Your task to perform on an android device: Search for hotels in Chicago Image 0: 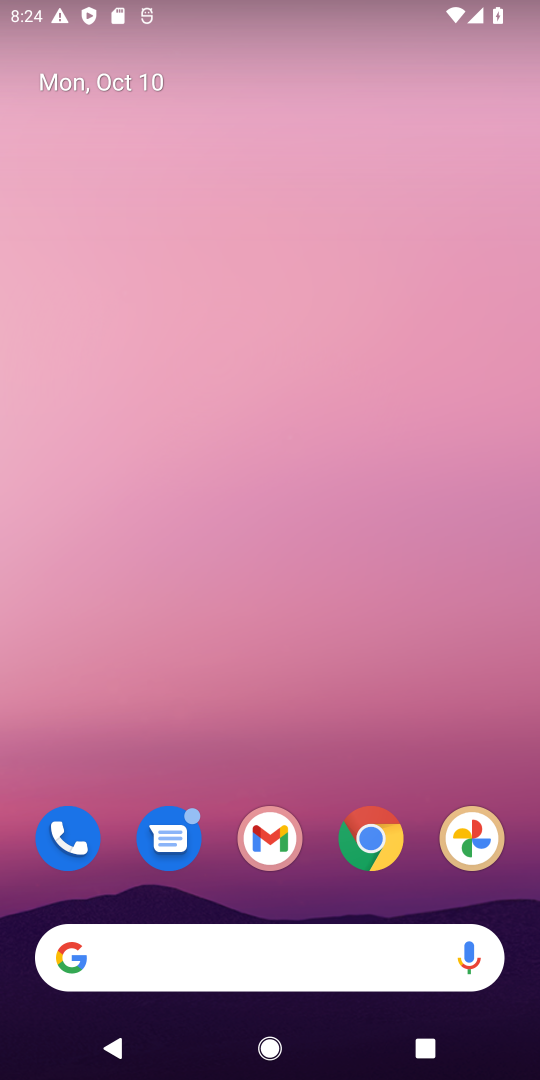
Step 0: drag from (285, 928) to (198, 123)
Your task to perform on an android device: Search for hotels in Chicago Image 1: 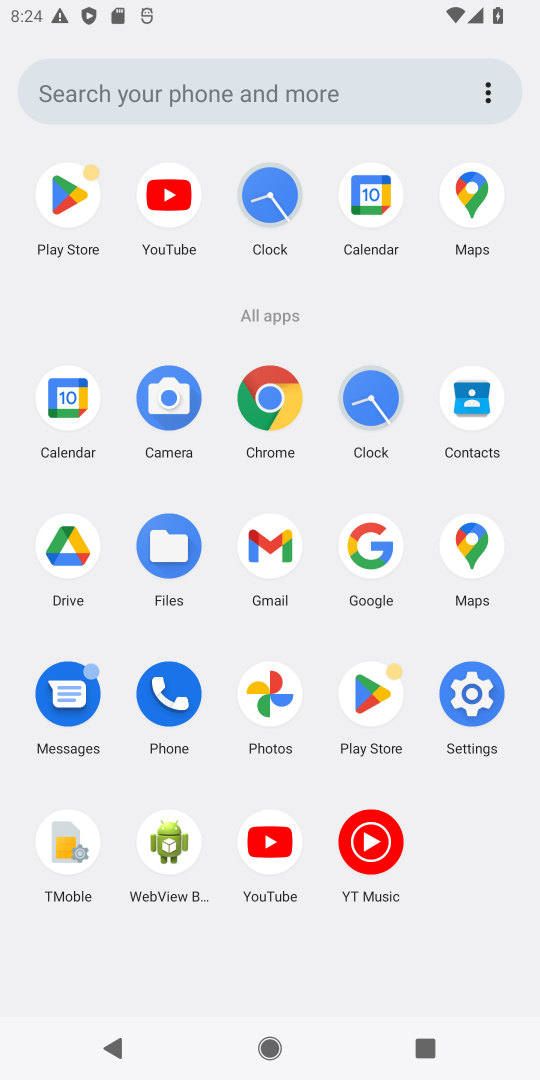
Step 1: click (364, 551)
Your task to perform on an android device: Search for hotels in Chicago Image 2: 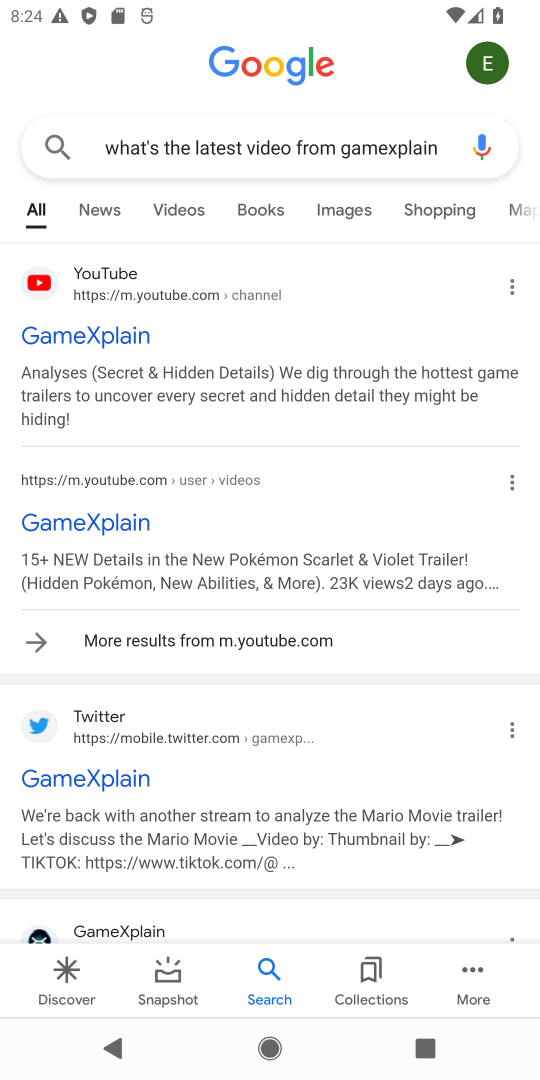
Step 2: click (316, 143)
Your task to perform on an android device: Search for hotels in Chicago Image 3: 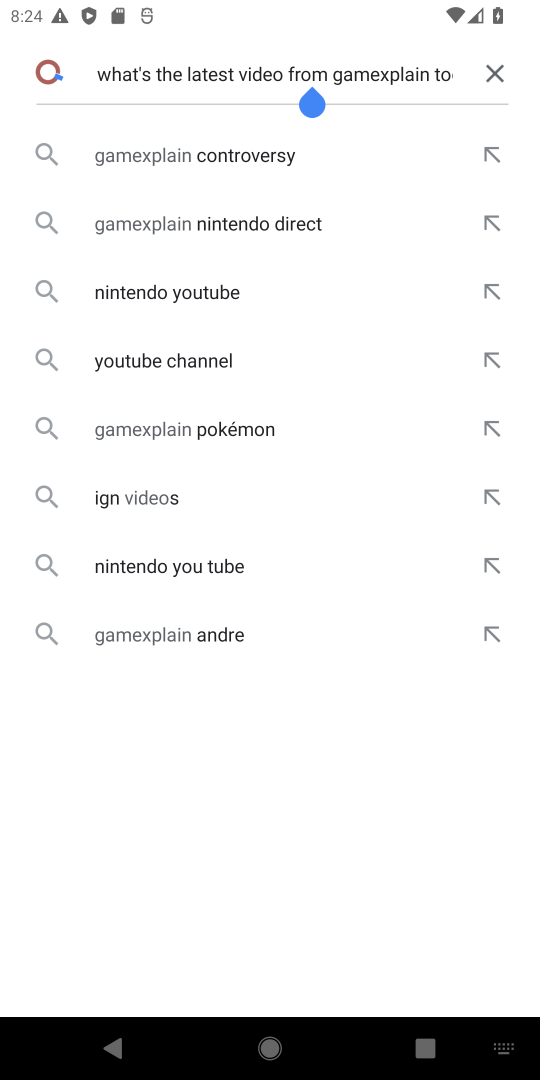
Step 3: click (351, 144)
Your task to perform on an android device: Search for hotels in Chicago Image 4: 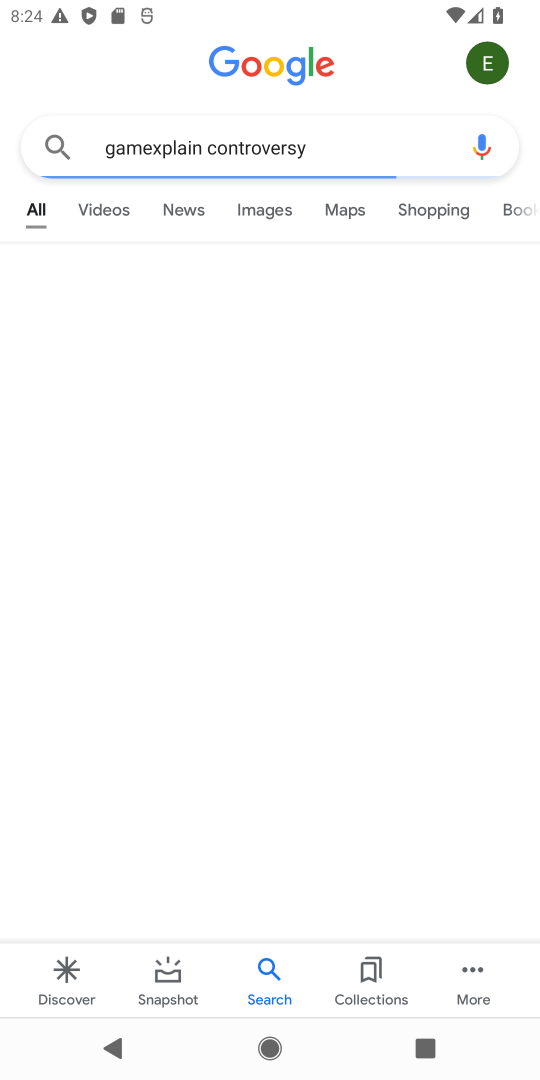
Step 4: click (312, 136)
Your task to perform on an android device: Search for hotels in Chicago Image 5: 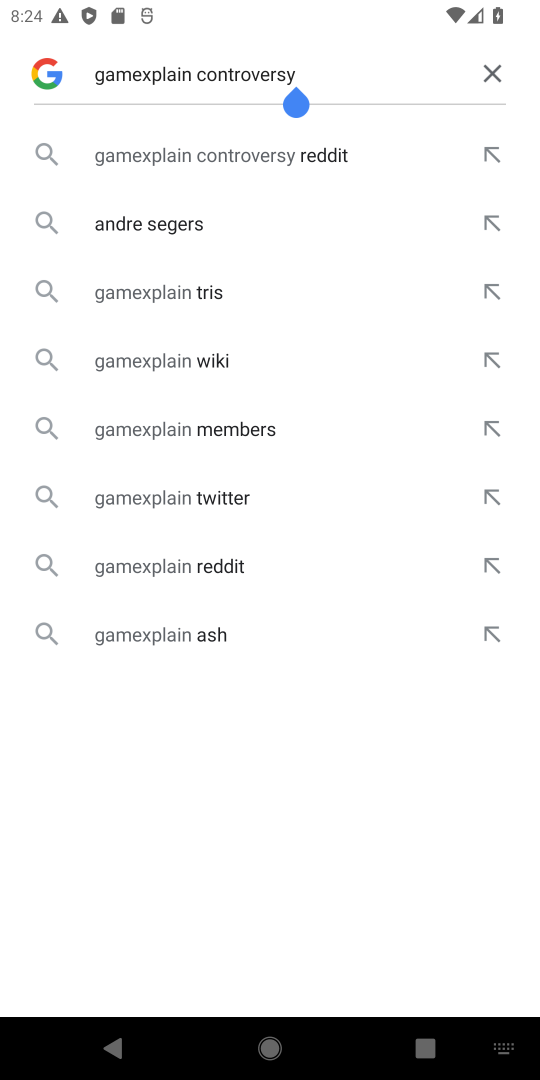
Step 5: click (495, 75)
Your task to perform on an android device: Search for hotels in Chicago Image 6: 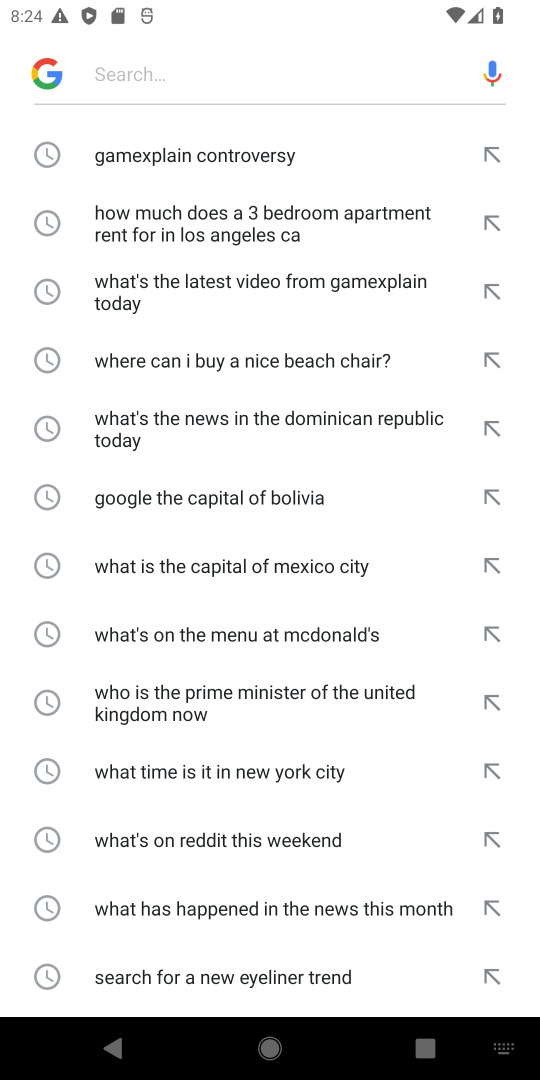
Step 6: click (430, 1072)
Your task to perform on an android device: Search for hotels in Chicago Image 7: 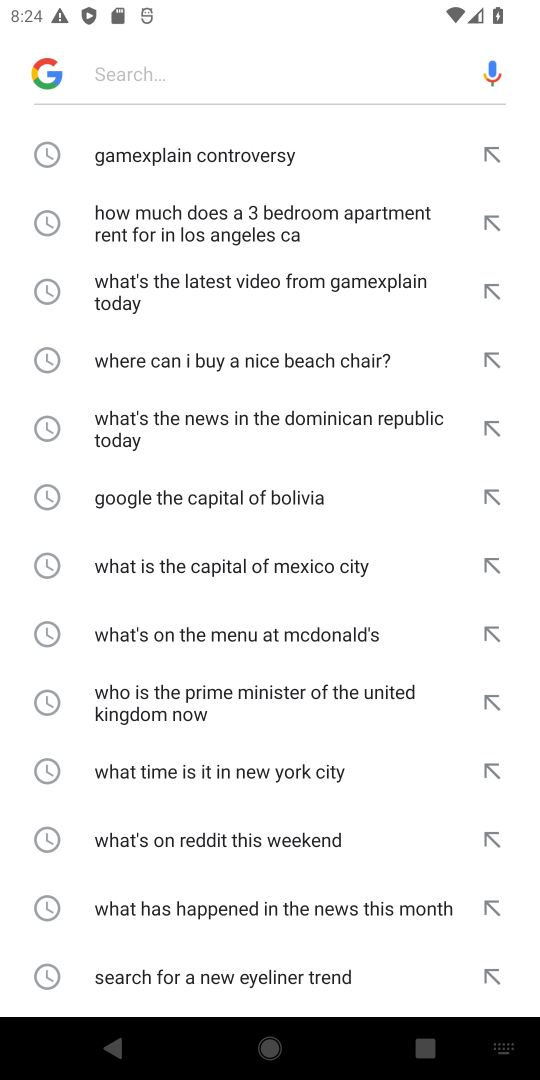
Step 7: type "hotels in Chicago"
Your task to perform on an android device: Search for hotels in Chicago Image 8: 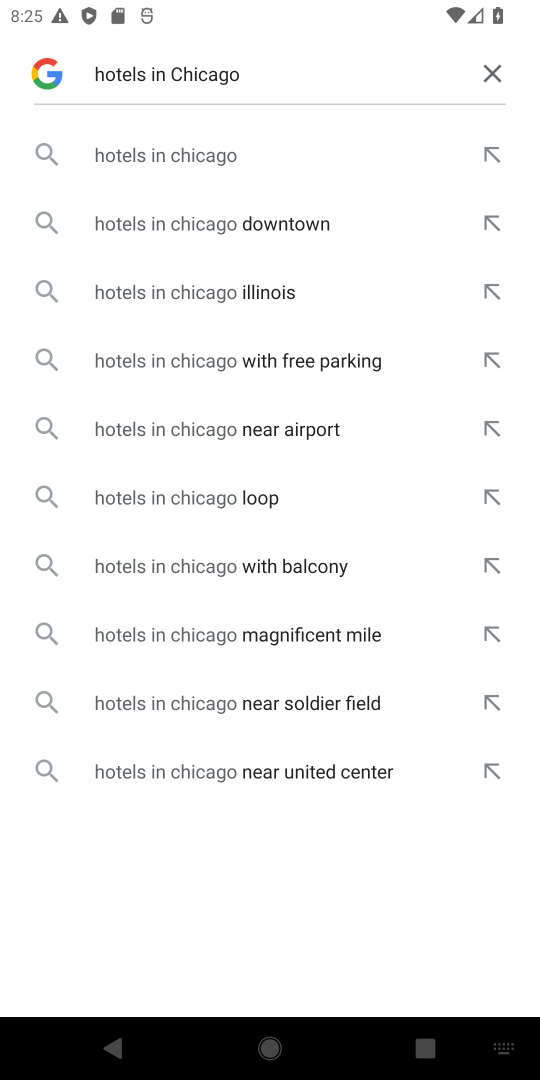
Step 8: click (182, 163)
Your task to perform on an android device: Search for hotels in Chicago Image 9: 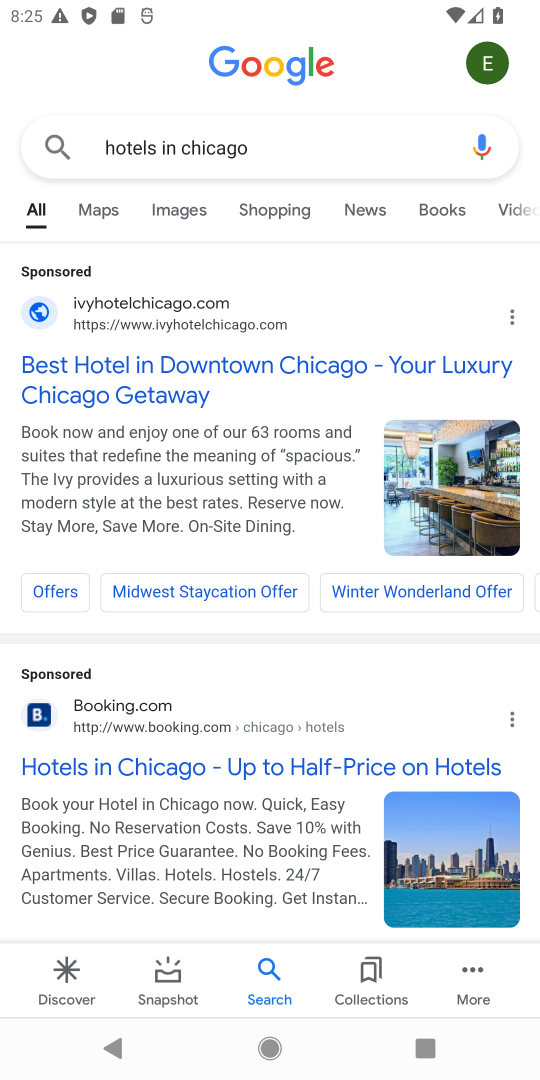
Step 9: click (226, 360)
Your task to perform on an android device: Search for hotels in Chicago Image 10: 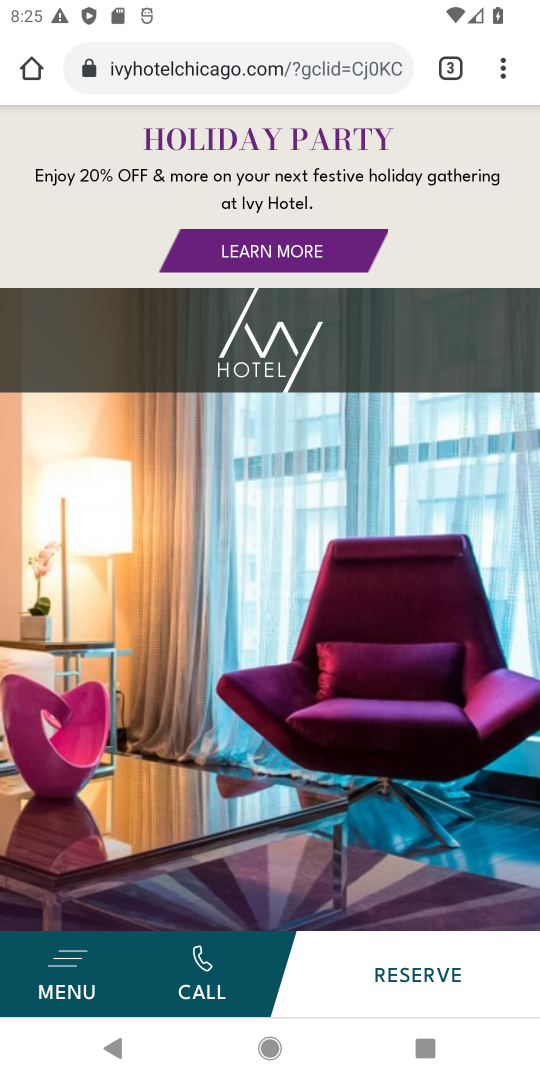
Step 10: task complete